Your task to perform on an android device: Do I have any events tomorrow? Image 0: 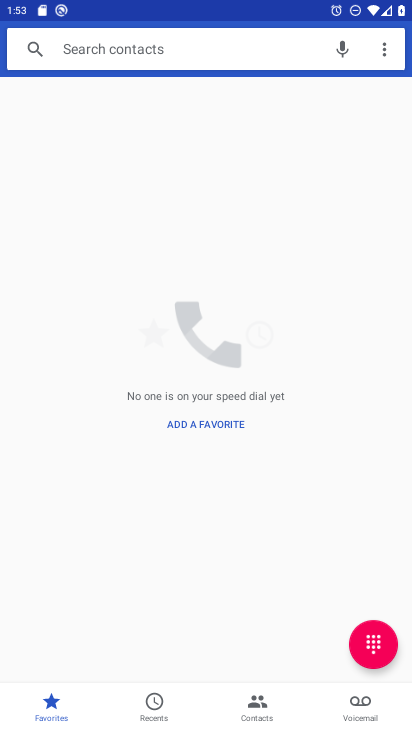
Step 0: press home button
Your task to perform on an android device: Do I have any events tomorrow? Image 1: 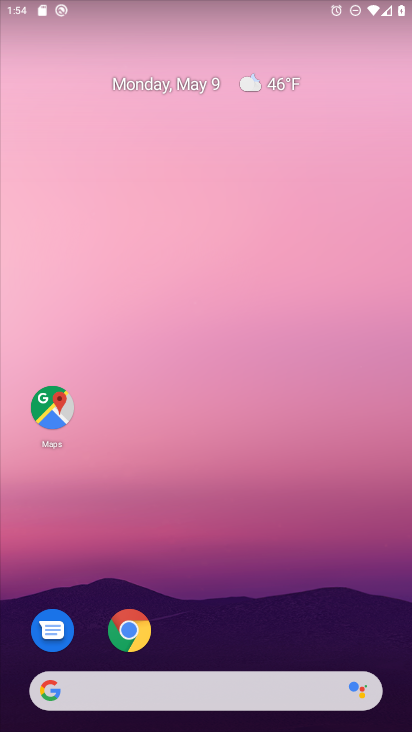
Step 1: drag from (290, 719) to (369, 213)
Your task to perform on an android device: Do I have any events tomorrow? Image 2: 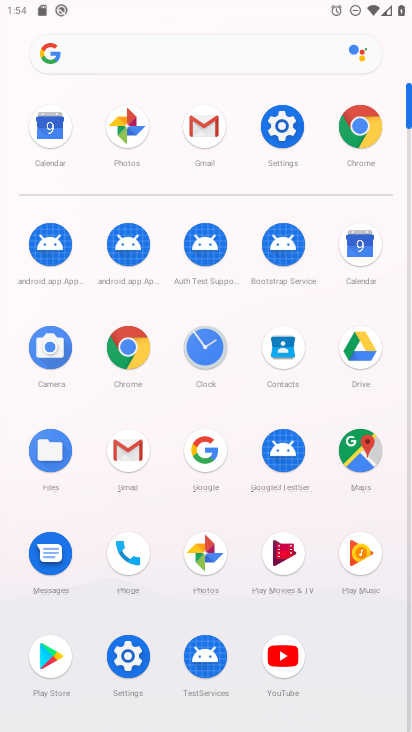
Step 2: click (166, 60)
Your task to perform on an android device: Do I have any events tomorrow? Image 3: 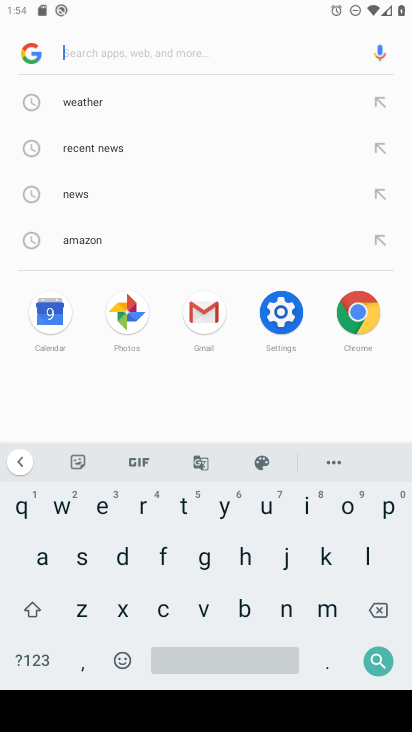
Step 3: click (79, 103)
Your task to perform on an android device: Do I have any events tomorrow? Image 4: 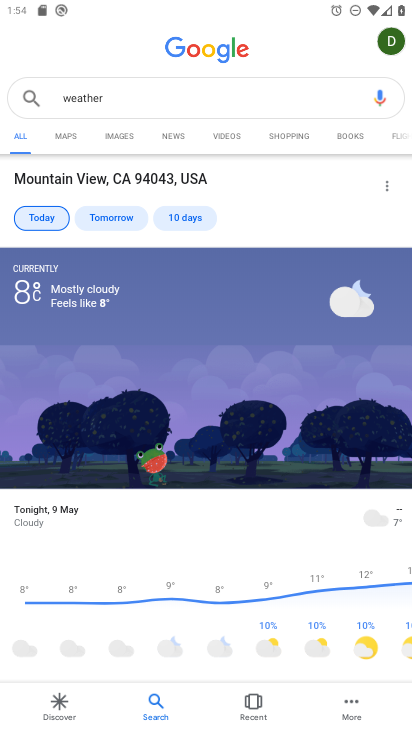
Step 4: click (88, 218)
Your task to perform on an android device: Do I have any events tomorrow? Image 5: 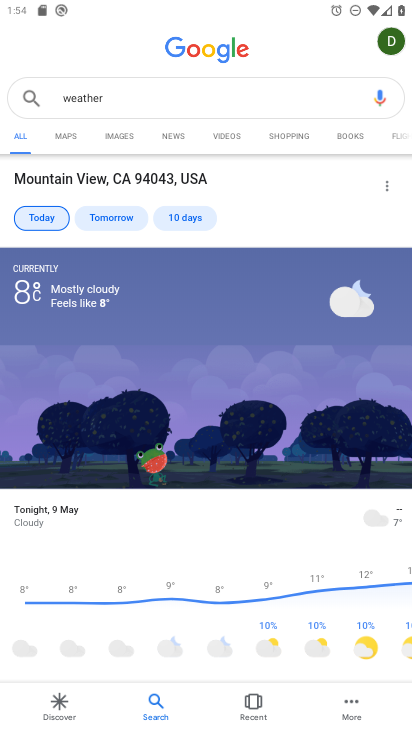
Step 5: click (113, 219)
Your task to perform on an android device: Do I have any events tomorrow? Image 6: 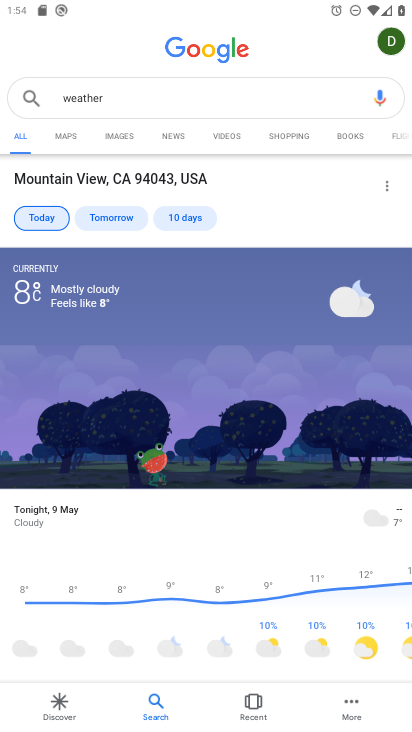
Step 6: click (113, 219)
Your task to perform on an android device: Do I have any events tomorrow? Image 7: 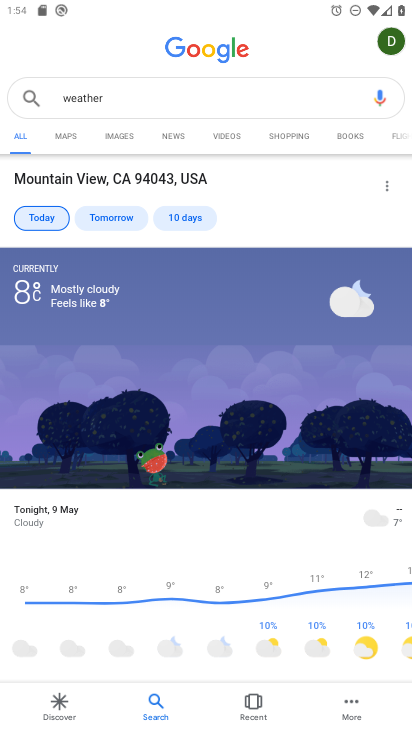
Step 7: click (113, 219)
Your task to perform on an android device: Do I have any events tomorrow? Image 8: 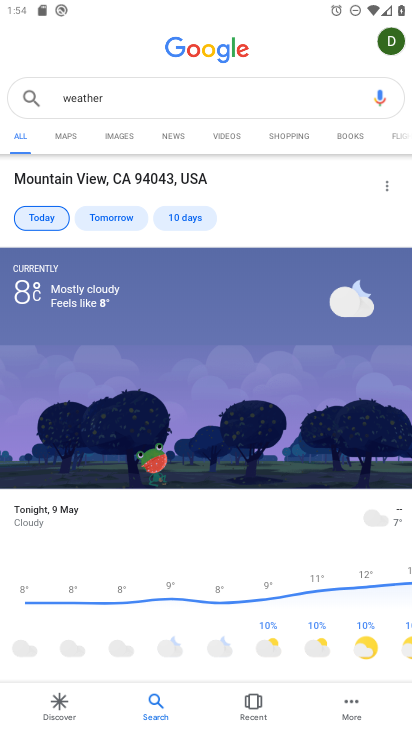
Step 8: click (116, 216)
Your task to perform on an android device: Do I have any events tomorrow? Image 9: 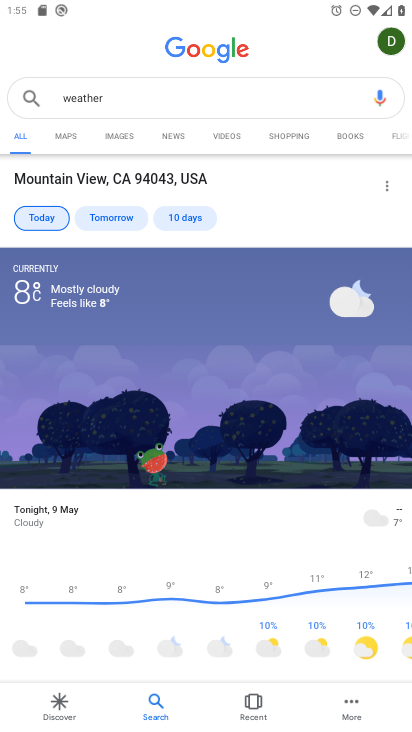
Step 9: task complete